Your task to perform on an android device: Do I have any events this weekend? Image 0: 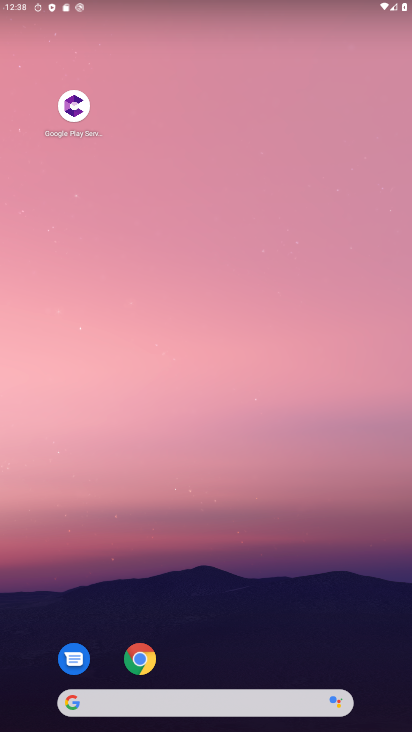
Step 0: drag from (255, 618) to (259, 150)
Your task to perform on an android device: Do I have any events this weekend? Image 1: 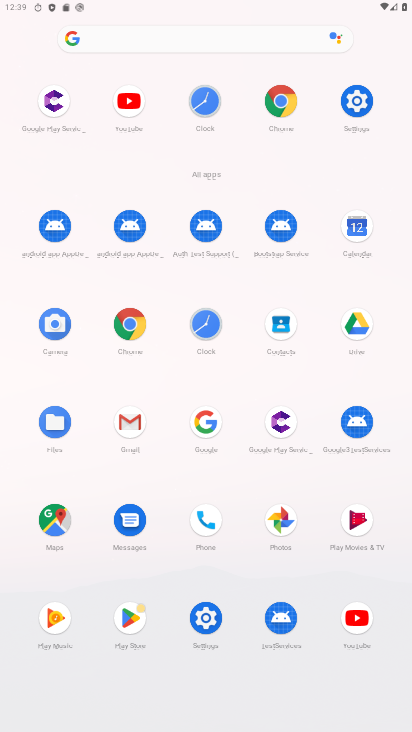
Step 1: click (358, 229)
Your task to perform on an android device: Do I have any events this weekend? Image 2: 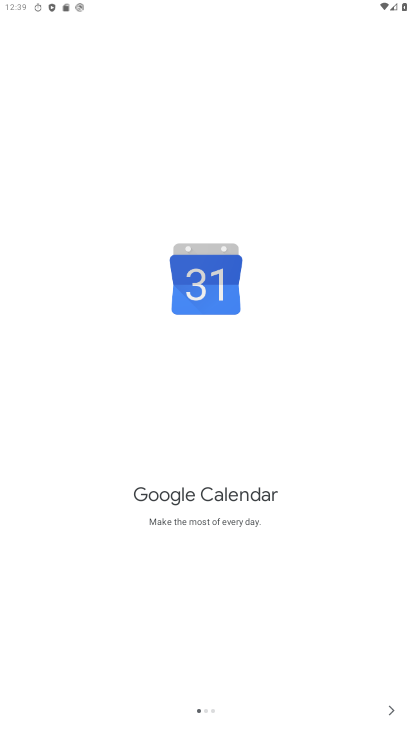
Step 2: click (395, 710)
Your task to perform on an android device: Do I have any events this weekend? Image 3: 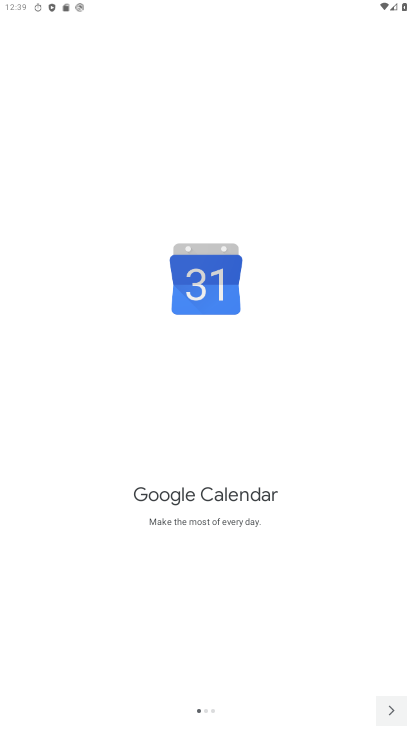
Step 3: click (395, 710)
Your task to perform on an android device: Do I have any events this weekend? Image 4: 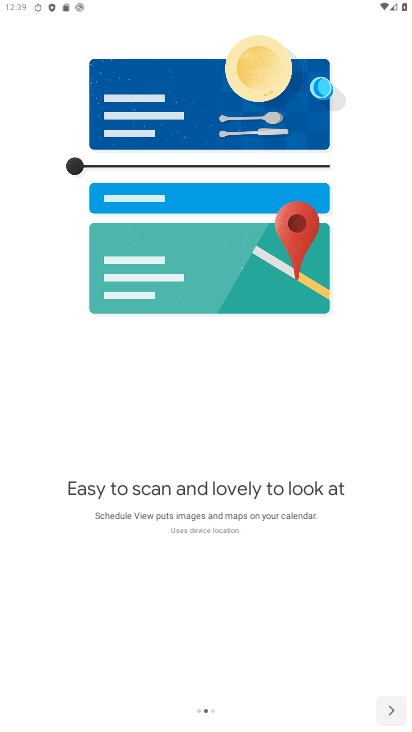
Step 4: click (395, 710)
Your task to perform on an android device: Do I have any events this weekend? Image 5: 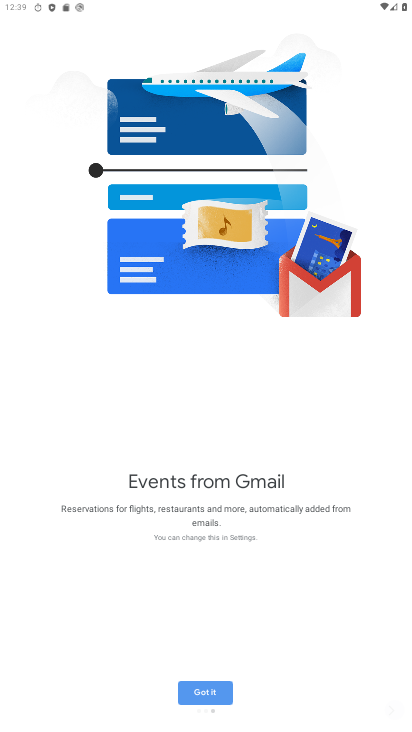
Step 5: click (395, 710)
Your task to perform on an android device: Do I have any events this weekend? Image 6: 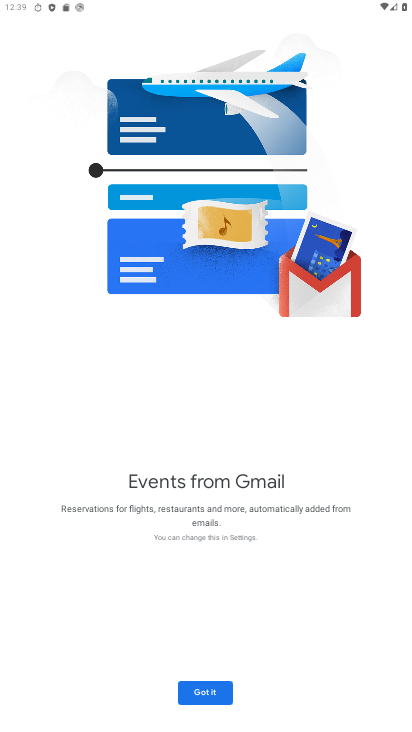
Step 6: click (193, 672)
Your task to perform on an android device: Do I have any events this weekend? Image 7: 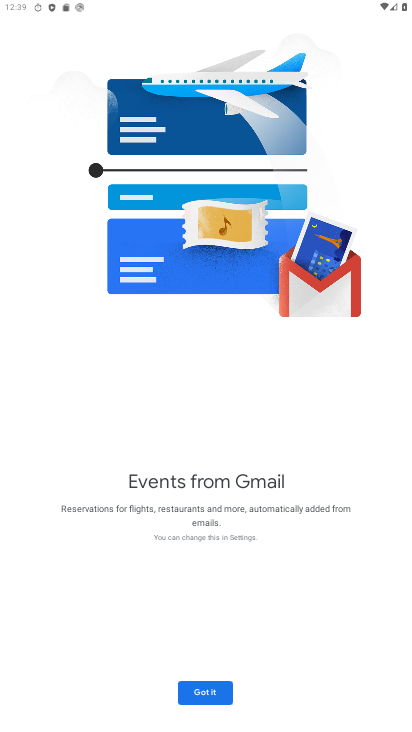
Step 7: click (189, 686)
Your task to perform on an android device: Do I have any events this weekend? Image 8: 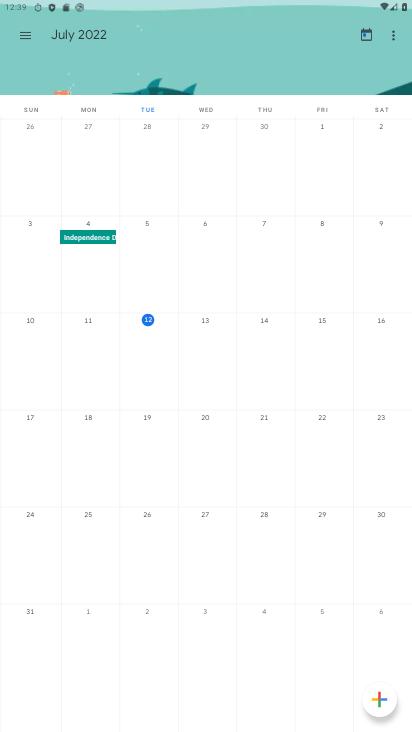
Step 8: click (30, 34)
Your task to perform on an android device: Do I have any events this weekend? Image 9: 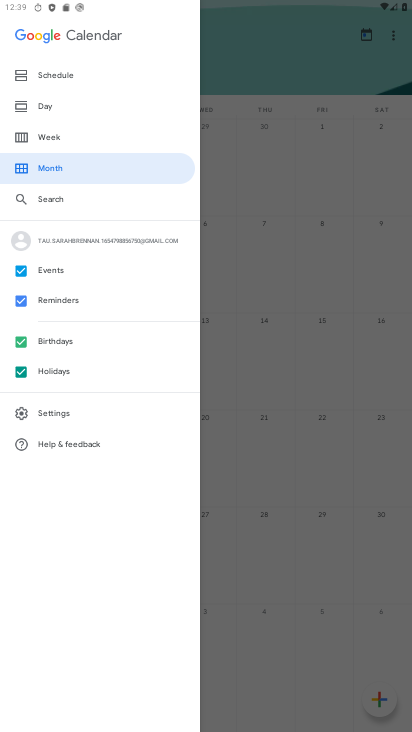
Step 9: click (316, 57)
Your task to perform on an android device: Do I have any events this weekend? Image 10: 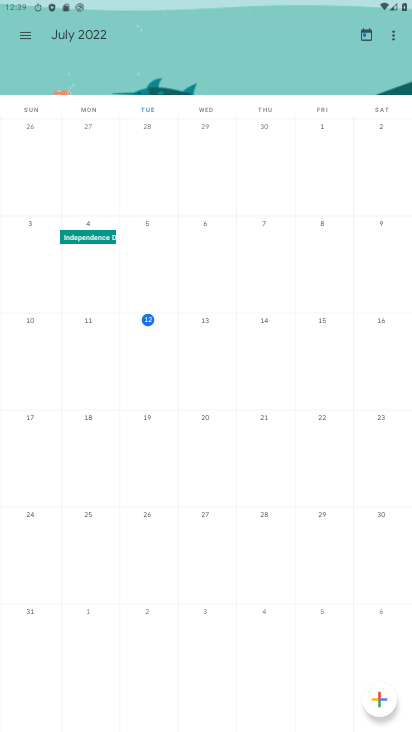
Step 10: click (381, 319)
Your task to perform on an android device: Do I have any events this weekend? Image 11: 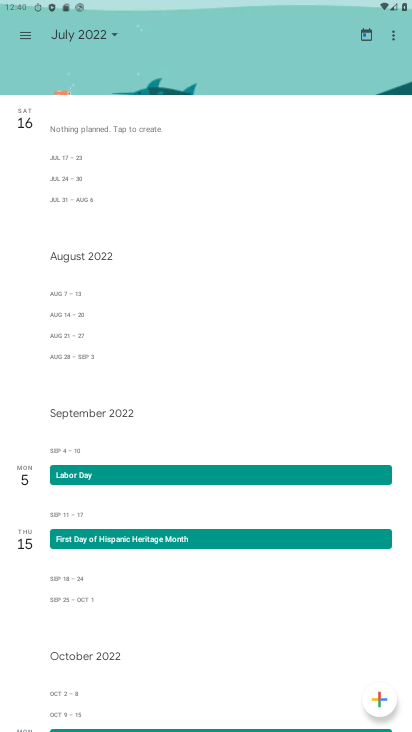
Step 11: click (26, 43)
Your task to perform on an android device: Do I have any events this weekend? Image 12: 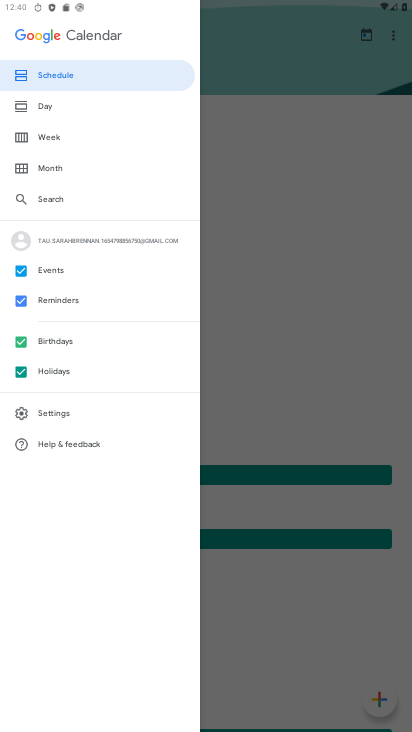
Step 12: click (49, 143)
Your task to perform on an android device: Do I have any events this weekend? Image 13: 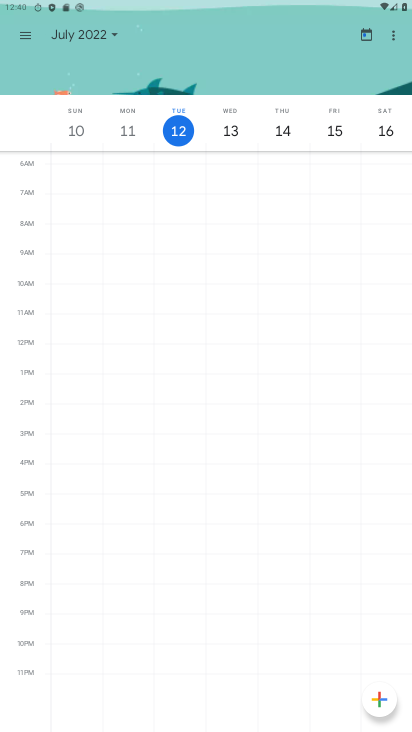
Step 13: drag from (378, 124) to (292, 117)
Your task to perform on an android device: Do I have any events this weekend? Image 14: 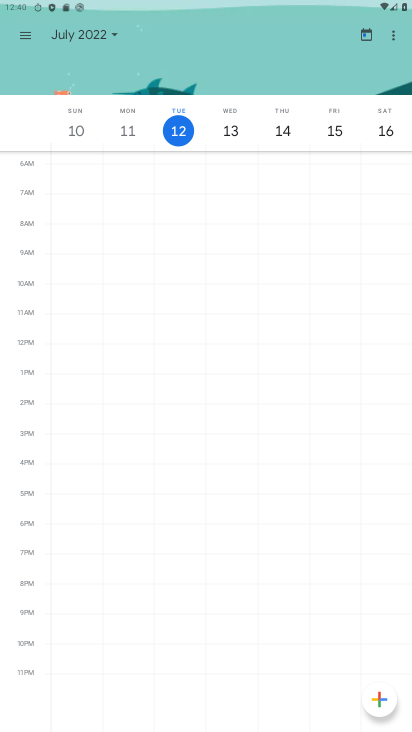
Step 14: drag from (355, 131) to (127, 126)
Your task to perform on an android device: Do I have any events this weekend? Image 15: 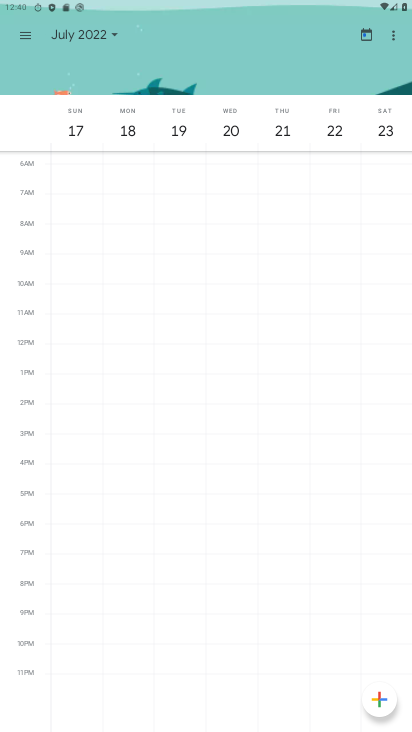
Step 15: drag from (167, 133) to (379, 104)
Your task to perform on an android device: Do I have any events this weekend? Image 16: 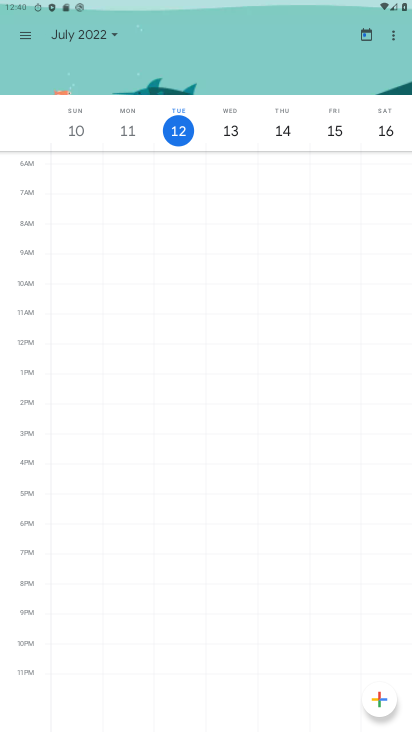
Step 16: click (383, 135)
Your task to perform on an android device: Do I have any events this weekend? Image 17: 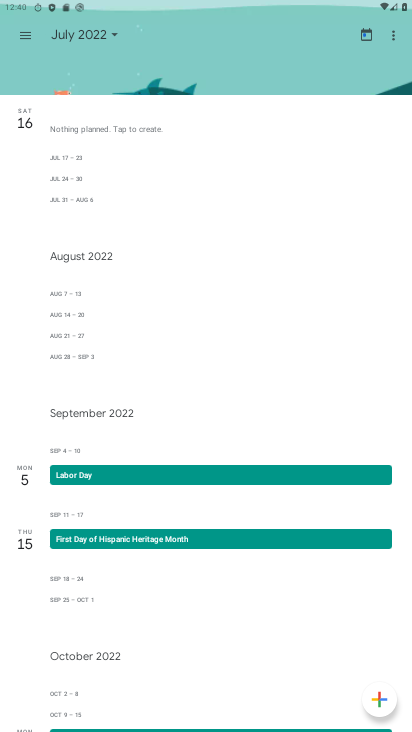
Step 17: task complete